Your task to perform on an android device: Open the phone app and click the voicemail tab. Image 0: 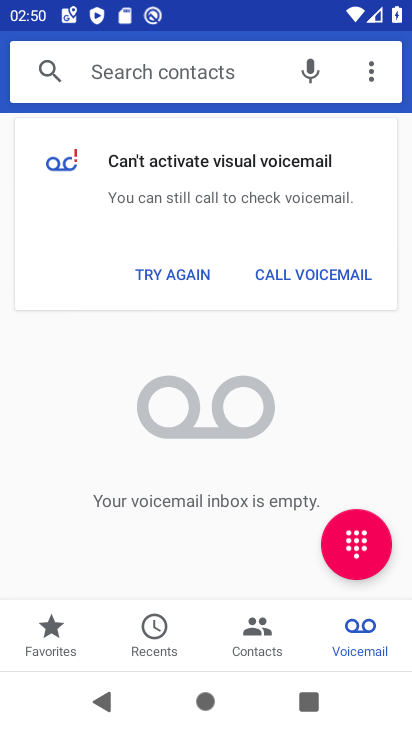
Step 0: press home button
Your task to perform on an android device: Open the phone app and click the voicemail tab. Image 1: 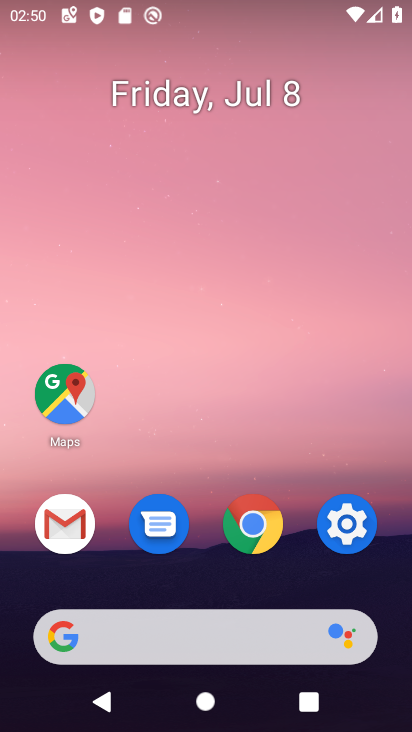
Step 1: drag from (168, 667) to (275, 253)
Your task to perform on an android device: Open the phone app and click the voicemail tab. Image 2: 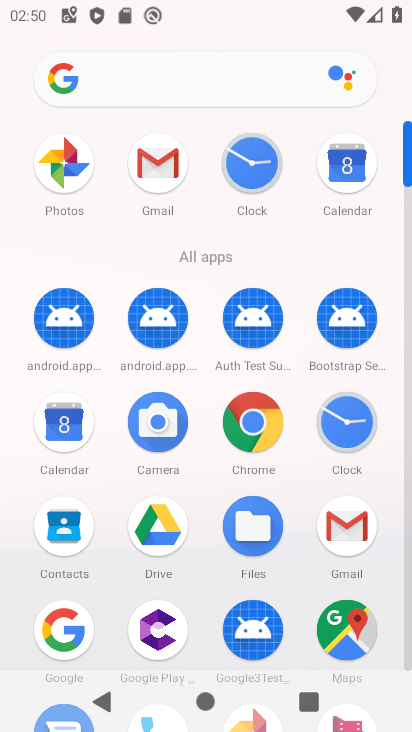
Step 2: click (109, 500)
Your task to perform on an android device: Open the phone app and click the voicemail tab. Image 3: 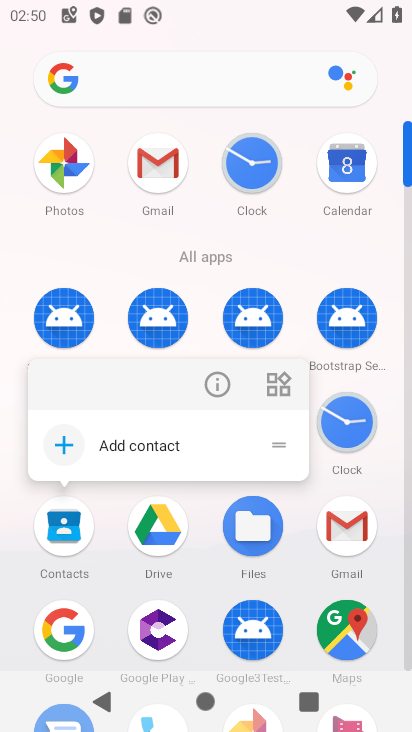
Step 3: drag from (106, 590) to (127, 345)
Your task to perform on an android device: Open the phone app and click the voicemail tab. Image 4: 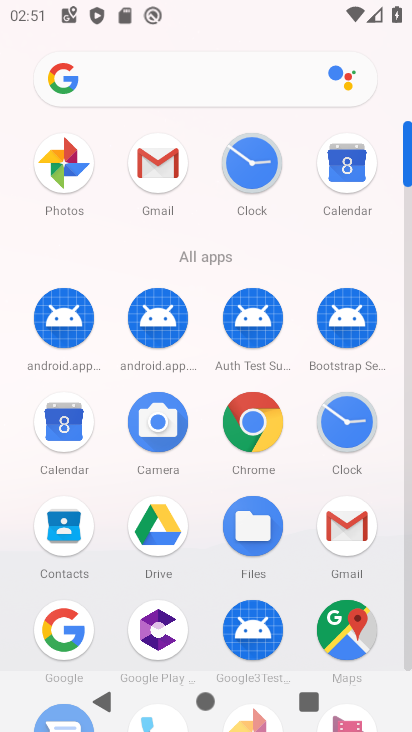
Step 4: drag from (111, 620) to (134, 488)
Your task to perform on an android device: Open the phone app and click the voicemail tab. Image 5: 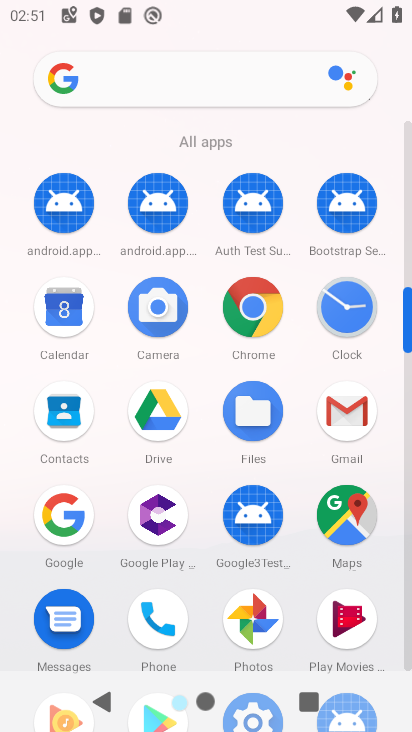
Step 5: click (164, 625)
Your task to perform on an android device: Open the phone app and click the voicemail tab. Image 6: 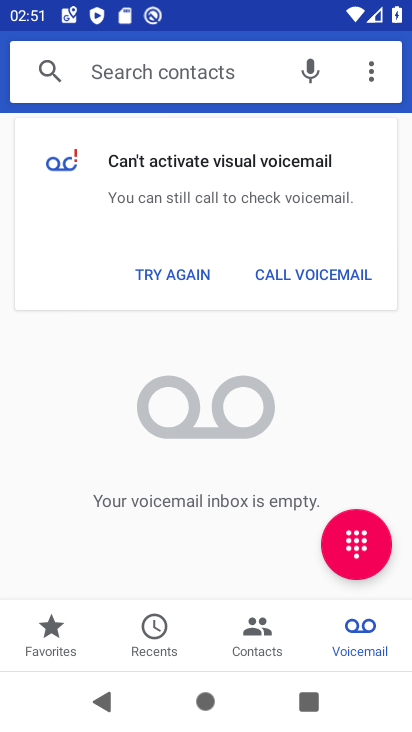
Step 6: click (256, 617)
Your task to perform on an android device: Open the phone app and click the voicemail tab. Image 7: 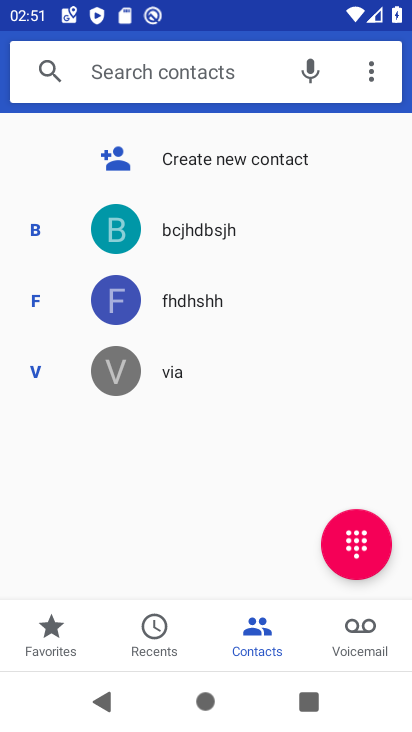
Step 7: click (356, 620)
Your task to perform on an android device: Open the phone app and click the voicemail tab. Image 8: 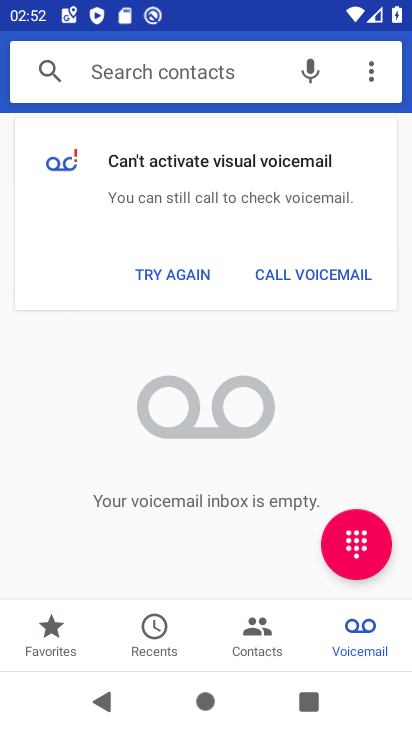
Step 8: task complete